Your task to perform on an android device: open chrome privacy settings Image 0: 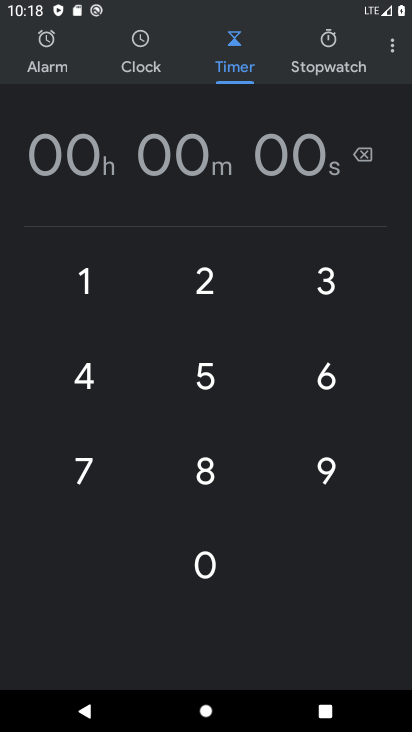
Step 0: press home button
Your task to perform on an android device: open chrome privacy settings Image 1: 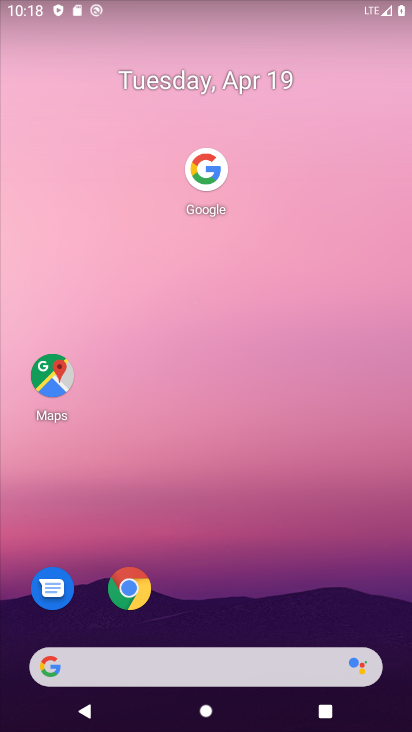
Step 1: click (131, 590)
Your task to perform on an android device: open chrome privacy settings Image 2: 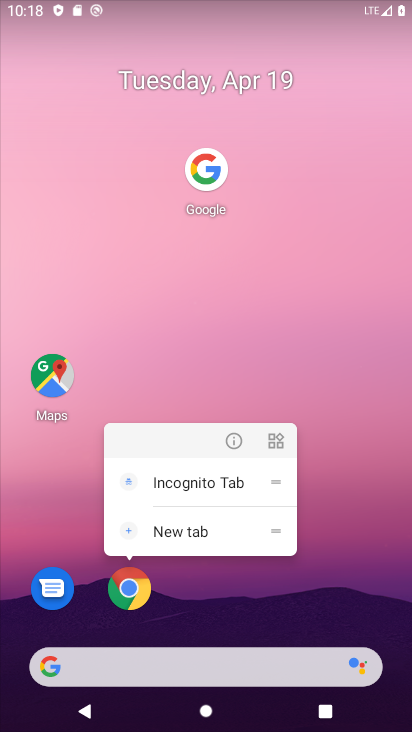
Step 2: click (130, 593)
Your task to perform on an android device: open chrome privacy settings Image 3: 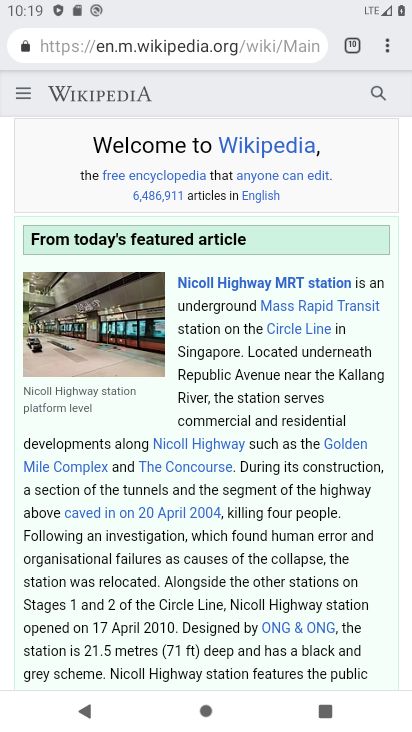
Step 3: click (382, 47)
Your task to perform on an android device: open chrome privacy settings Image 4: 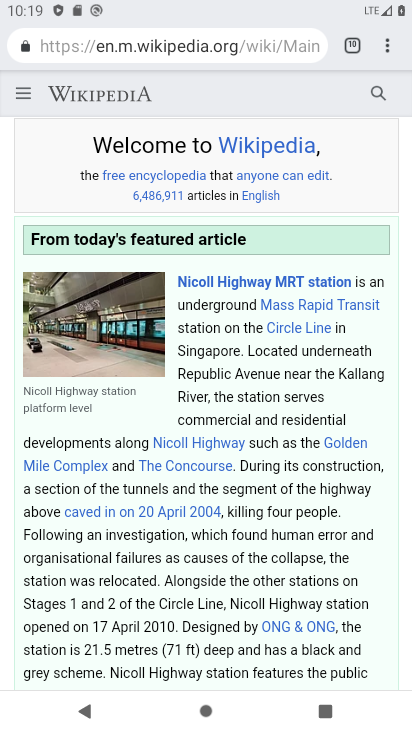
Step 4: click (382, 48)
Your task to perform on an android device: open chrome privacy settings Image 5: 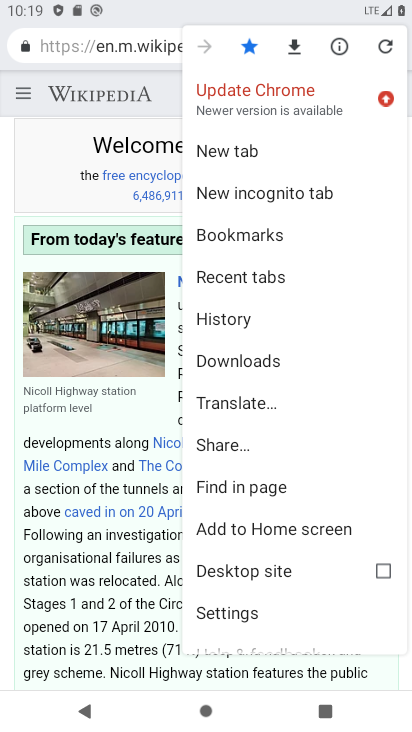
Step 5: click (218, 612)
Your task to perform on an android device: open chrome privacy settings Image 6: 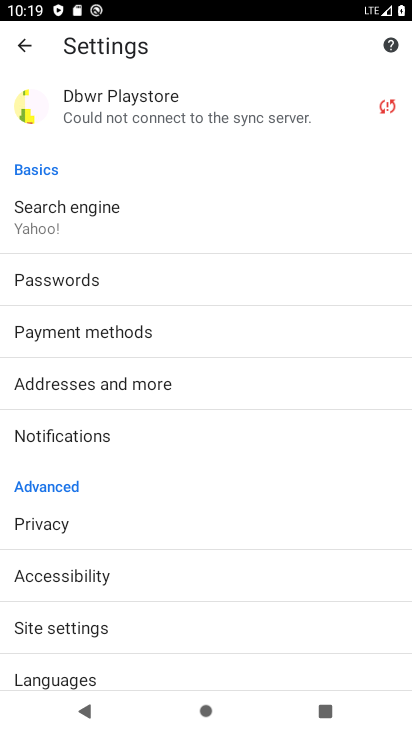
Step 6: click (46, 524)
Your task to perform on an android device: open chrome privacy settings Image 7: 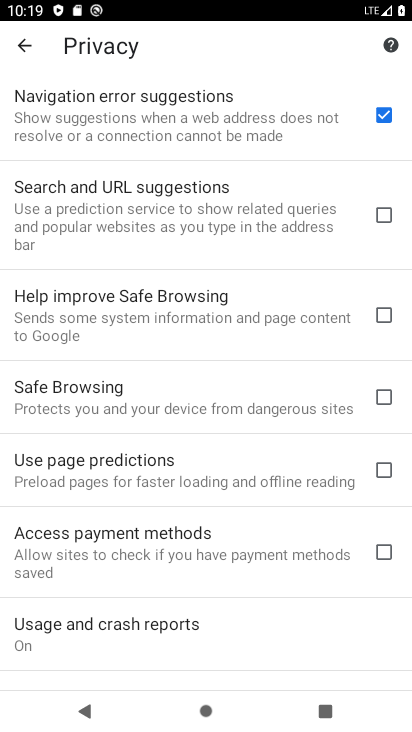
Step 7: task complete